Your task to perform on an android device: turn on improve location accuracy Image 0: 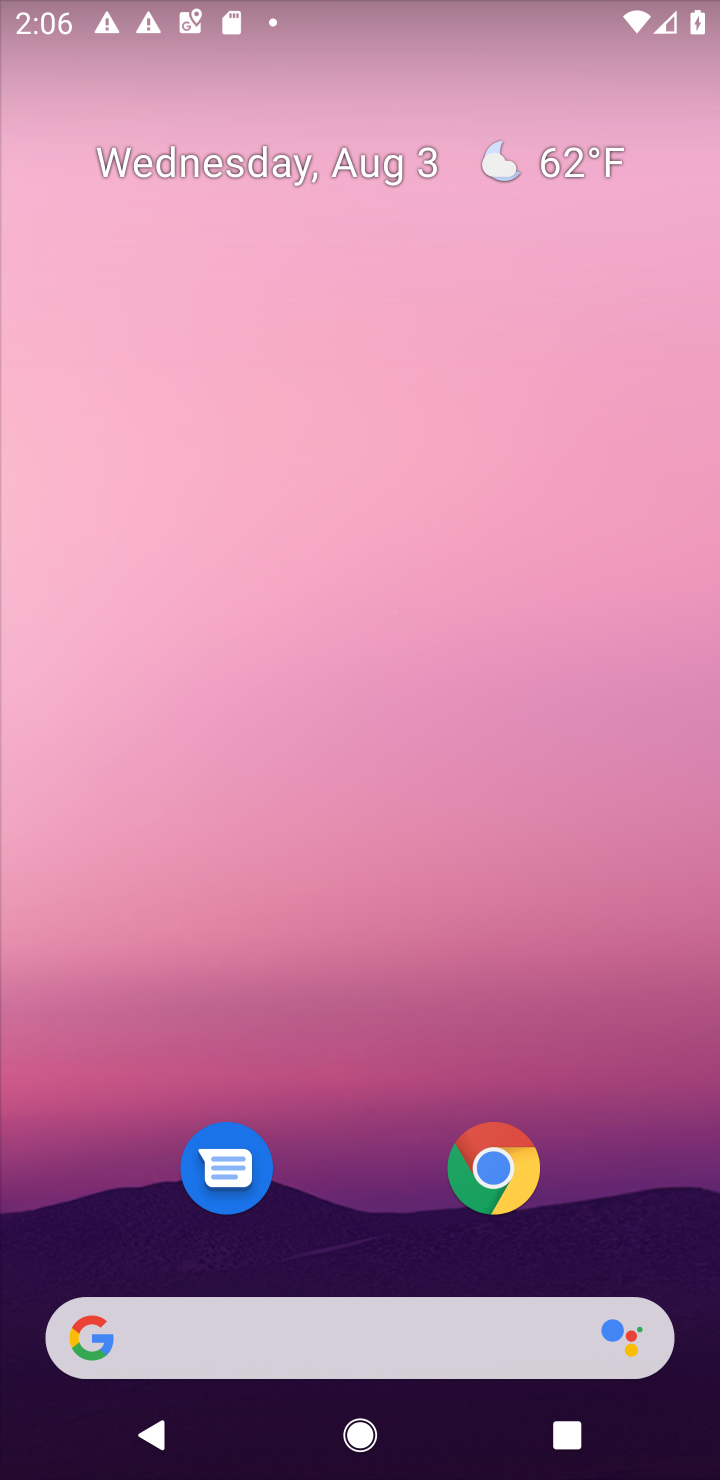
Step 0: drag from (675, 1255) to (600, 287)
Your task to perform on an android device: turn on improve location accuracy Image 1: 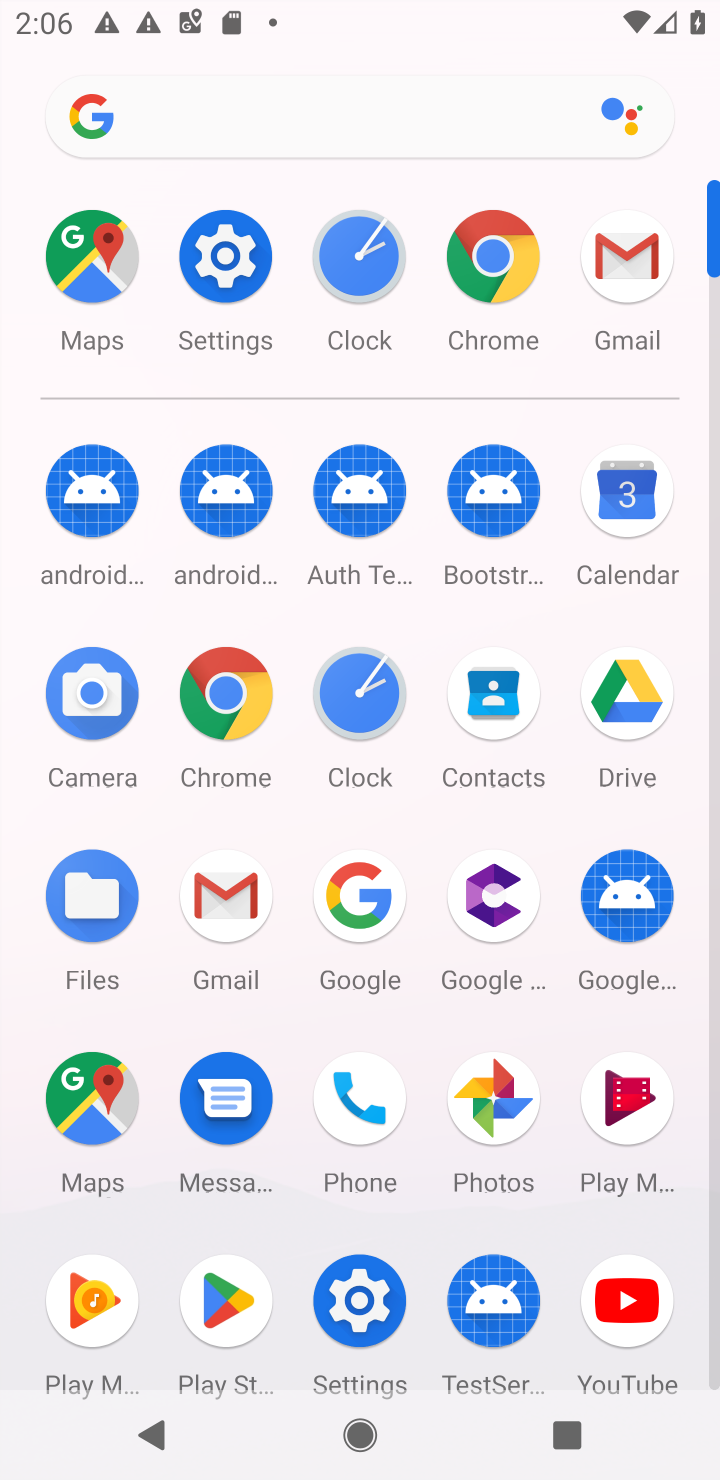
Step 1: click (355, 1304)
Your task to perform on an android device: turn on improve location accuracy Image 2: 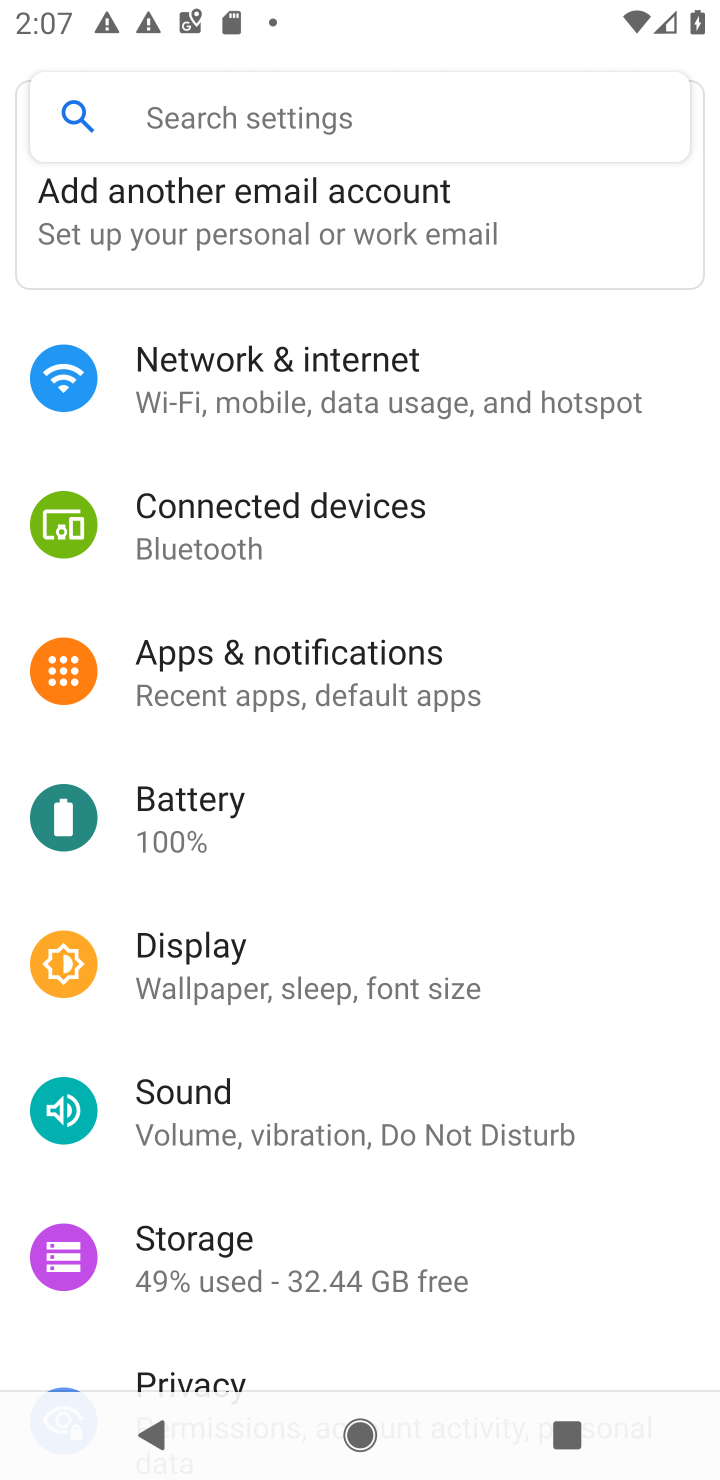
Step 2: drag from (602, 1281) to (589, 643)
Your task to perform on an android device: turn on improve location accuracy Image 3: 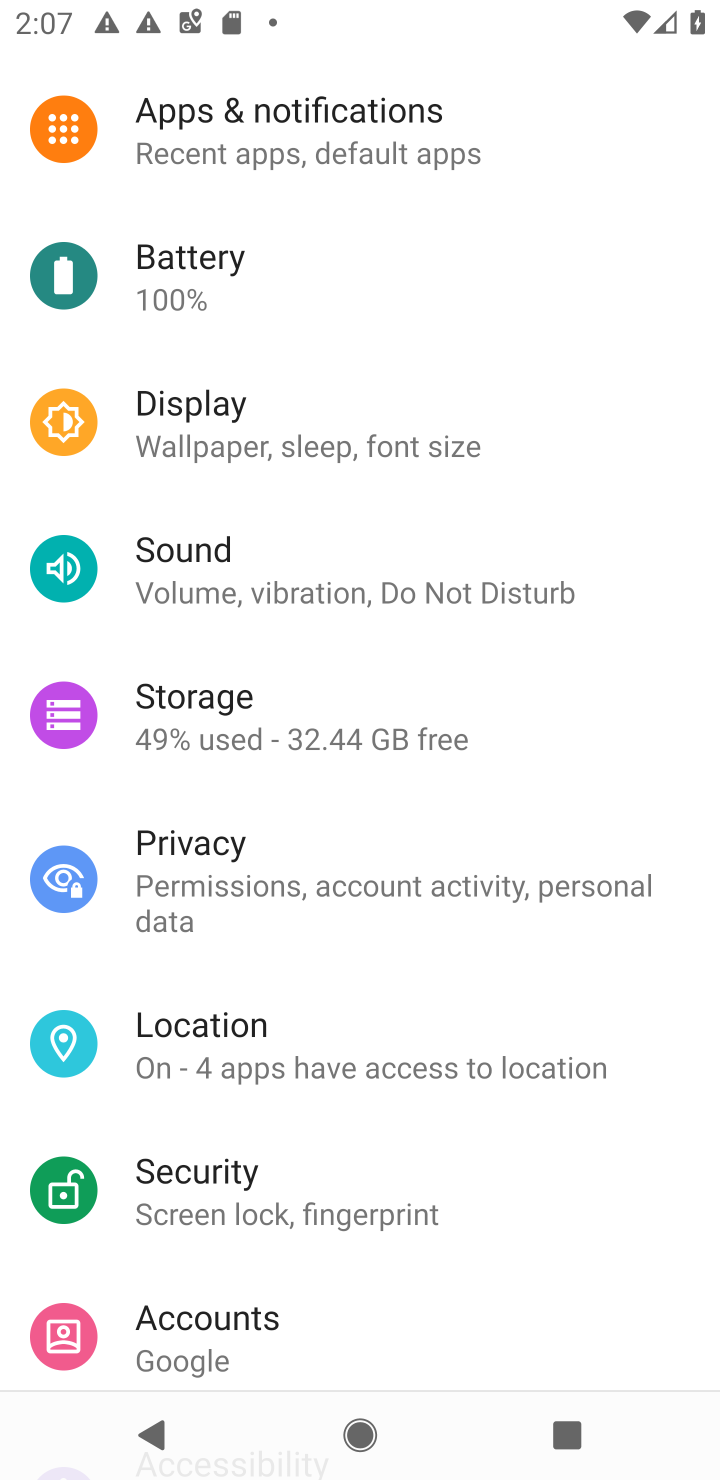
Step 3: click (197, 1045)
Your task to perform on an android device: turn on improve location accuracy Image 4: 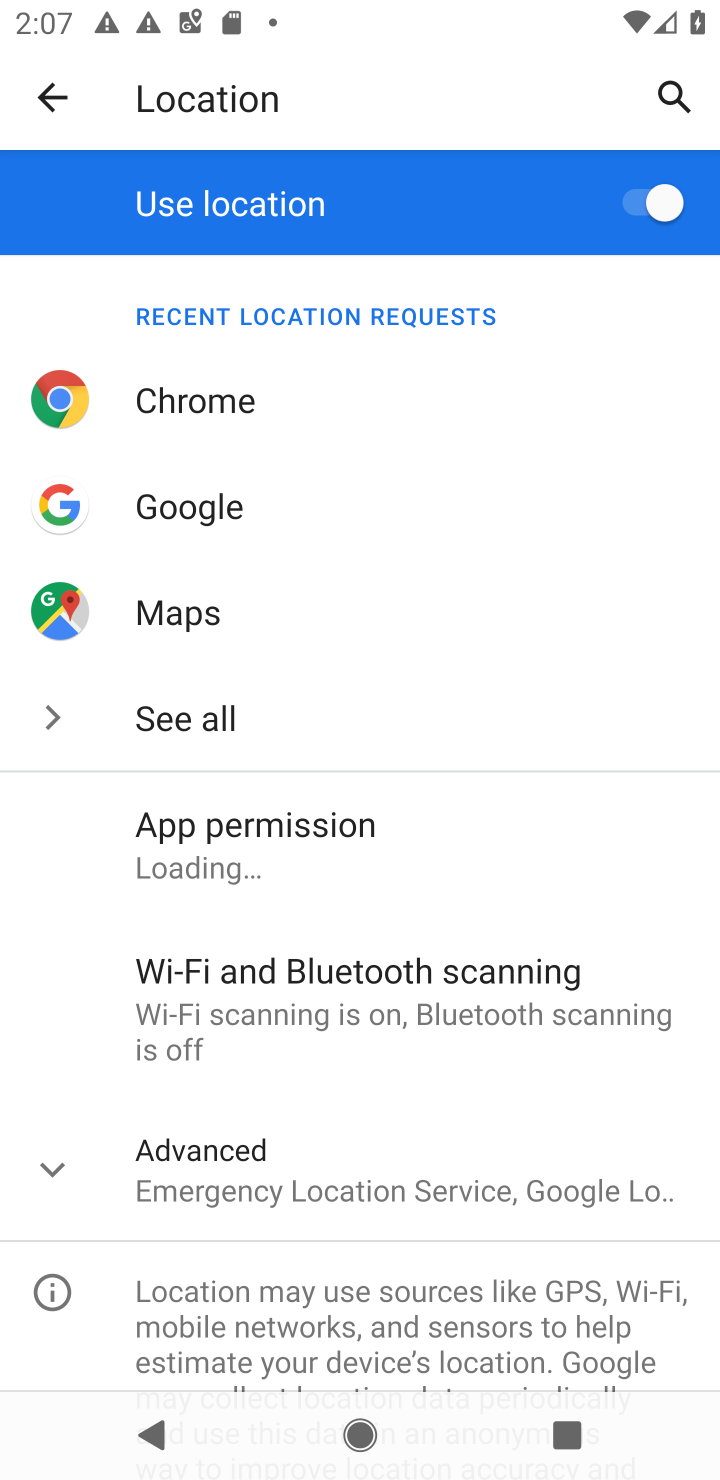
Step 4: click (49, 1169)
Your task to perform on an android device: turn on improve location accuracy Image 5: 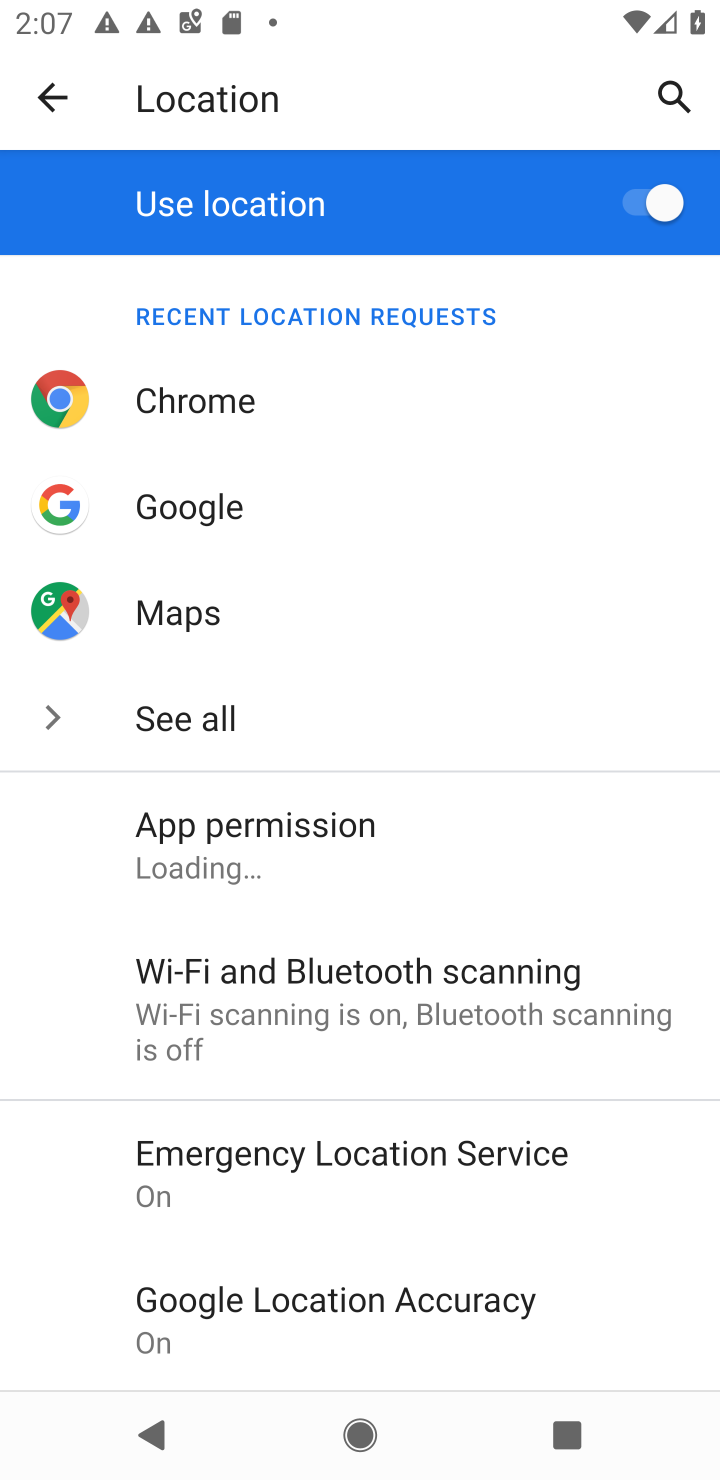
Step 5: click (468, 1292)
Your task to perform on an android device: turn on improve location accuracy Image 6: 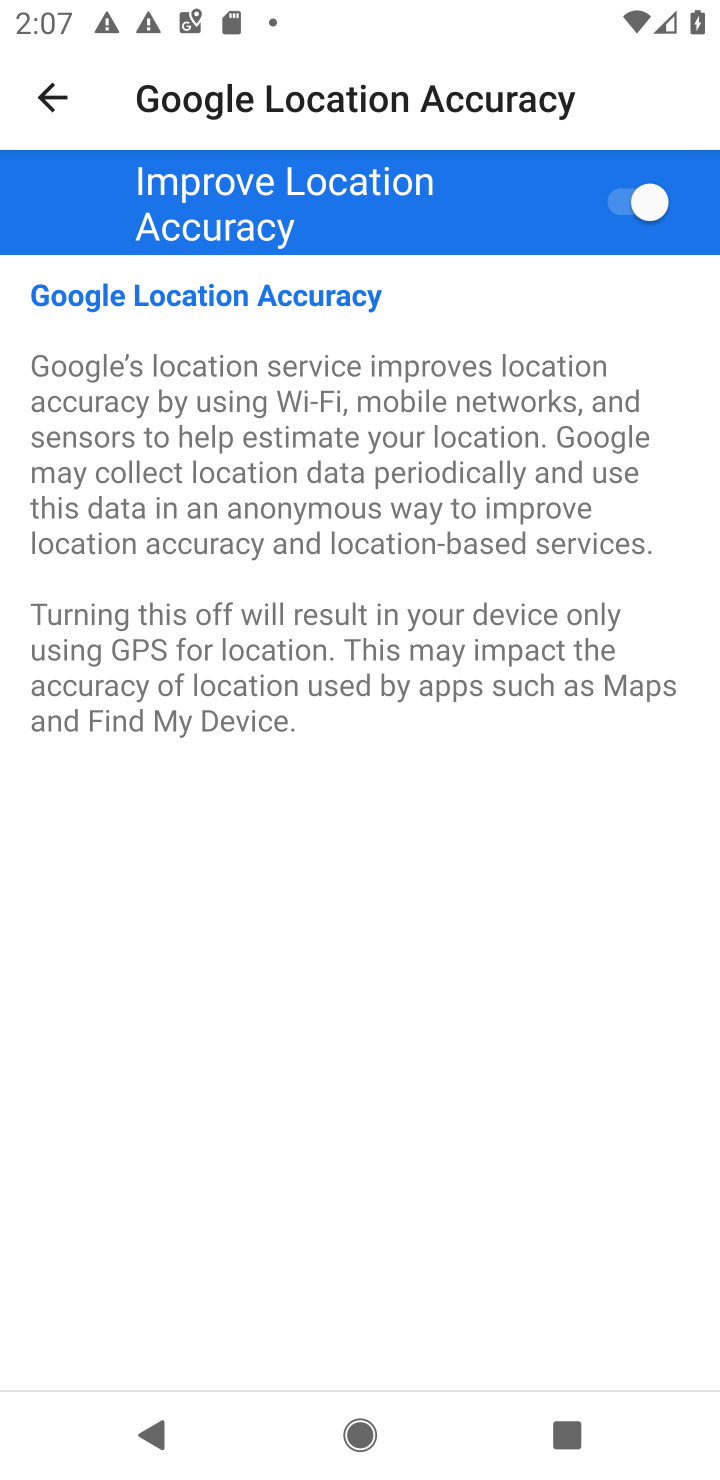
Step 6: task complete